Your task to perform on an android device: Open Chrome and go to the settings page Image 0: 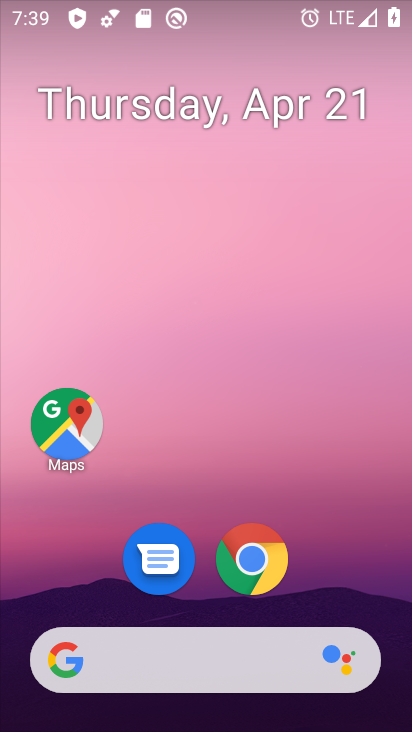
Step 0: drag from (352, 575) to (326, 213)
Your task to perform on an android device: Open Chrome and go to the settings page Image 1: 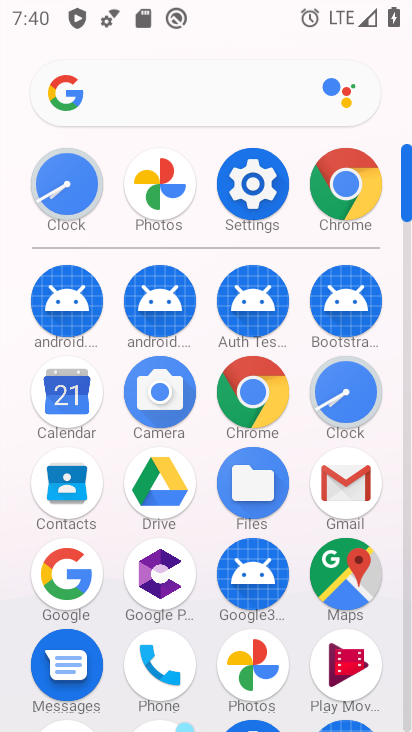
Step 1: click (280, 405)
Your task to perform on an android device: Open Chrome and go to the settings page Image 2: 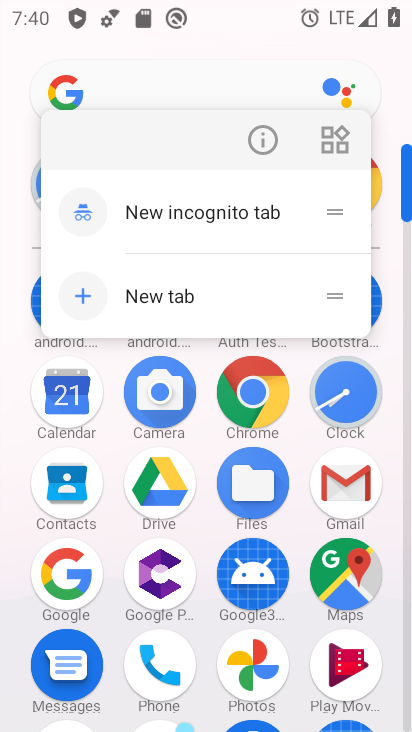
Step 2: click (280, 405)
Your task to perform on an android device: Open Chrome and go to the settings page Image 3: 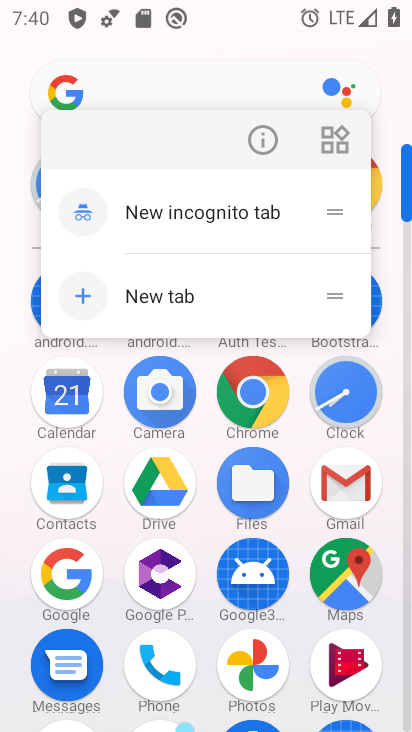
Step 3: click (274, 413)
Your task to perform on an android device: Open Chrome and go to the settings page Image 4: 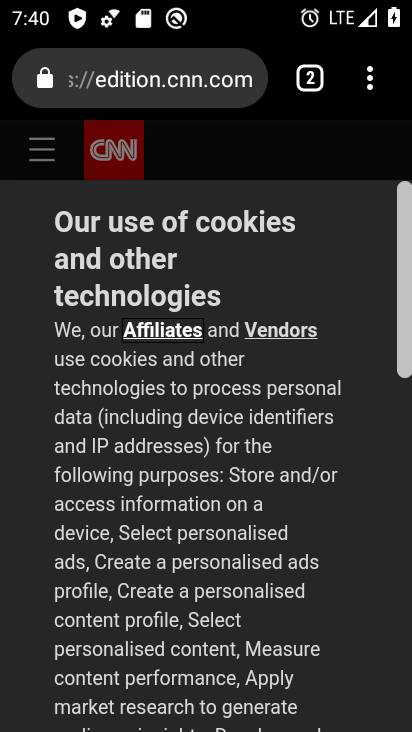
Step 4: task complete